Your task to perform on an android device: empty trash in google photos Image 0: 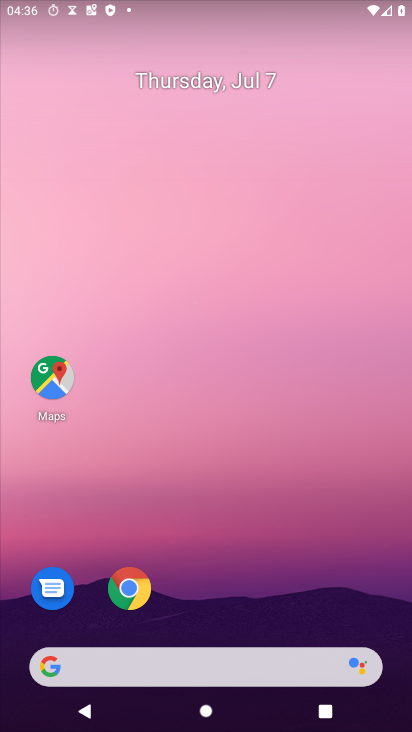
Step 0: press home button
Your task to perform on an android device: empty trash in google photos Image 1: 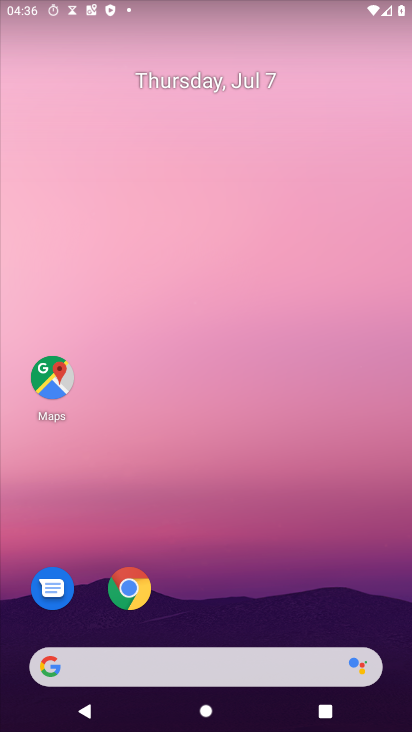
Step 1: drag from (285, 613) to (215, 169)
Your task to perform on an android device: empty trash in google photos Image 2: 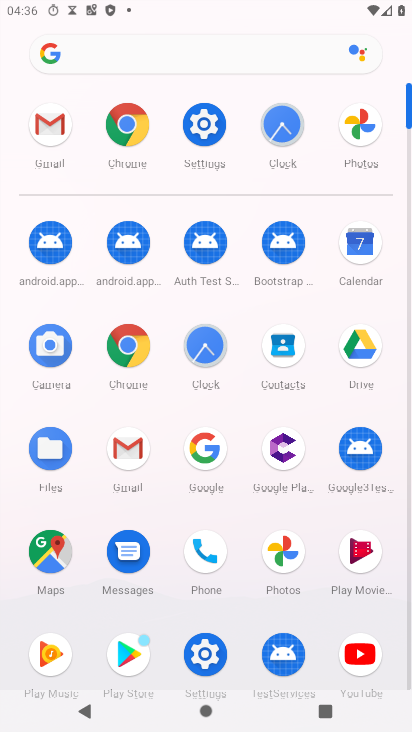
Step 2: click (280, 544)
Your task to perform on an android device: empty trash in google photos Image 3: 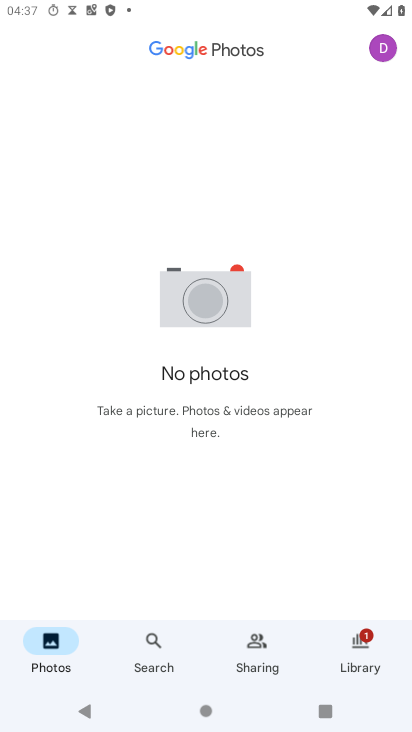
Step 3: click (354, 642)
Your task to perform on an android device: empty trash in google photos Image 4: 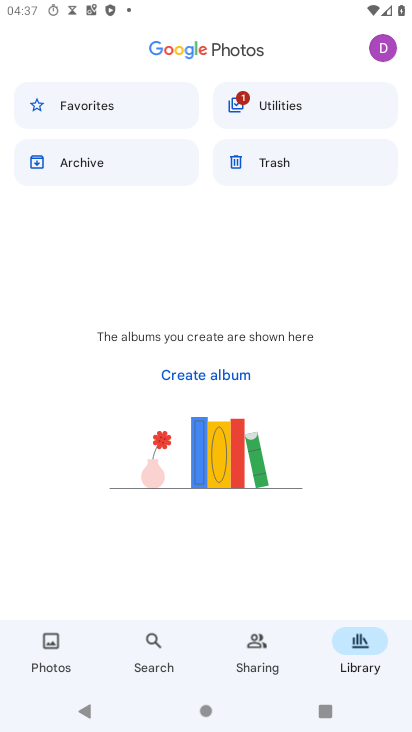
Step 4: click (287, 159)
Your task to perform on an android device: empty trash in google photos Image 5: 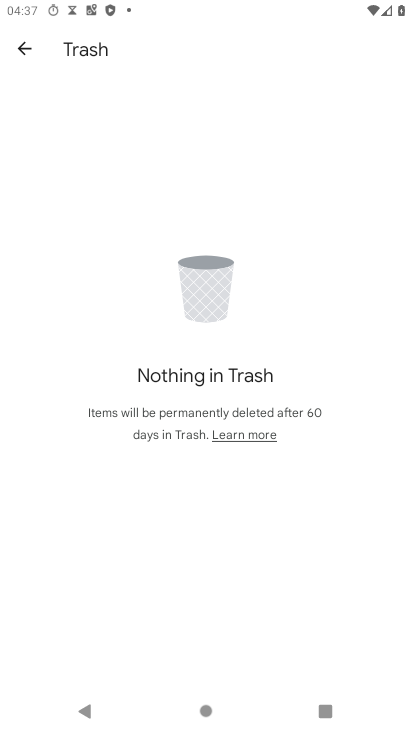
Step 5: task complete